Your task to perform on an android device: Go to display settings Image 0: 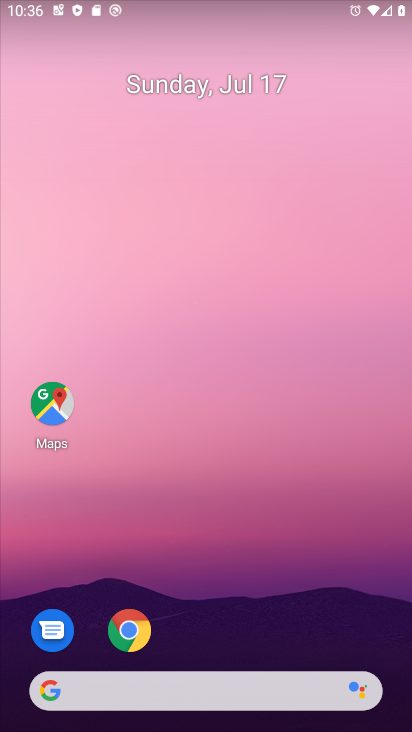
Step 0: drag from (334, 621) to (361, 112)
Your task to perform on an android device: Go to display settings Image 1: 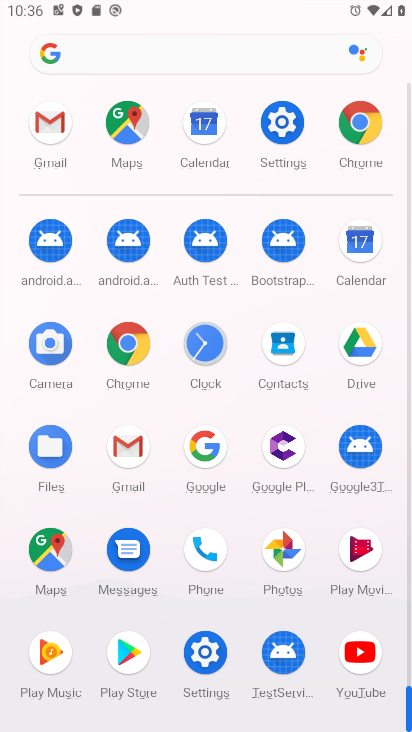
Step 1: click (285, 128)
Your task to perform on an android device: Go to display settings Image 2: 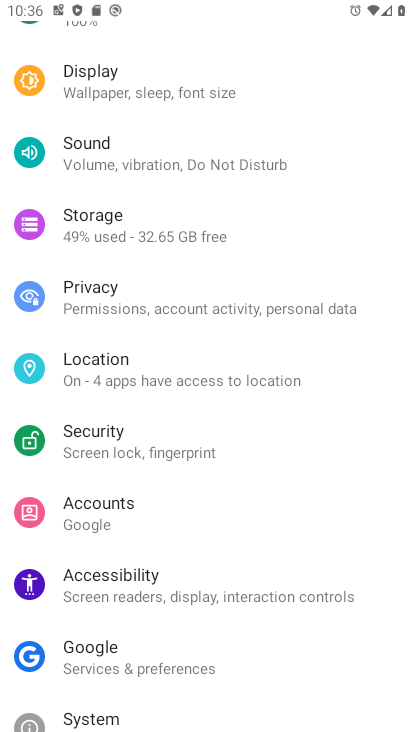
Step 2: drag from (355, 221) to (365, 349)
Your task to perform on an android device: Go to display settings Image 3: 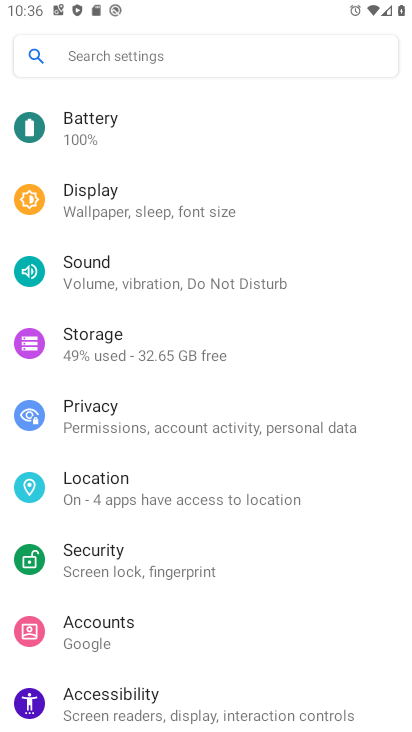
Step 3: drag from (375, 175) to (364, 294)
Your task to perform on an android device: Go to display settings Image 4: 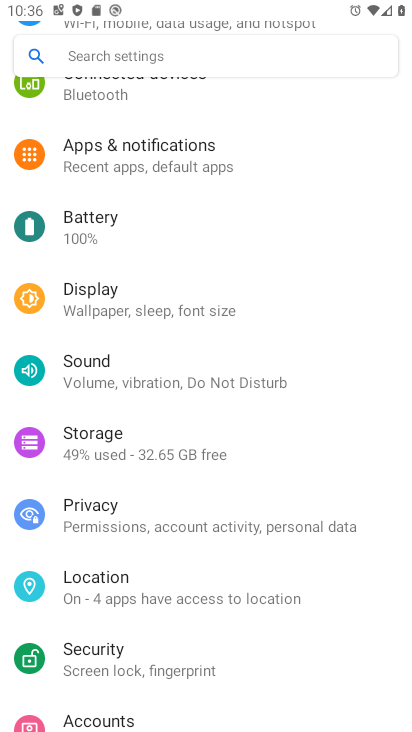
Step 4: drag from (361, 161) to (359, 300)
Your task to perform on an android device: Go to display settings Image 5: 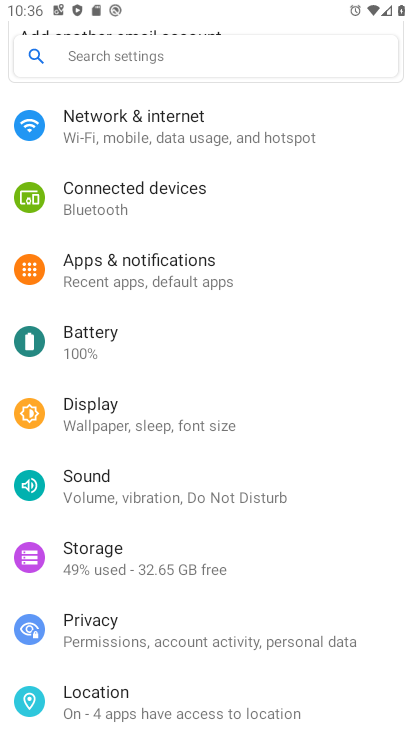
Step 5: drag from (366, 154) to (368, 288)
Your task to perform on an android device: Go to display settings Image 6: 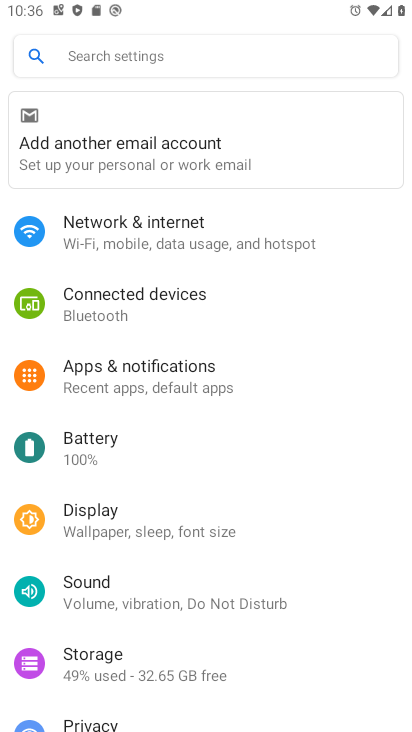
Step 6: drag from (362, 250) to (363, 390)
Your task to perform on an android device: Go to display settings Image 7: 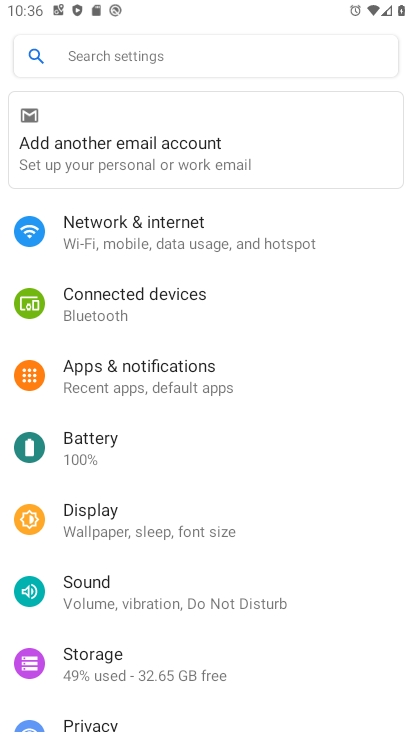
Step 7: drag from (341, 464) to (353, 354)
Your task to perform on an android device: Go to display settings Image 8: 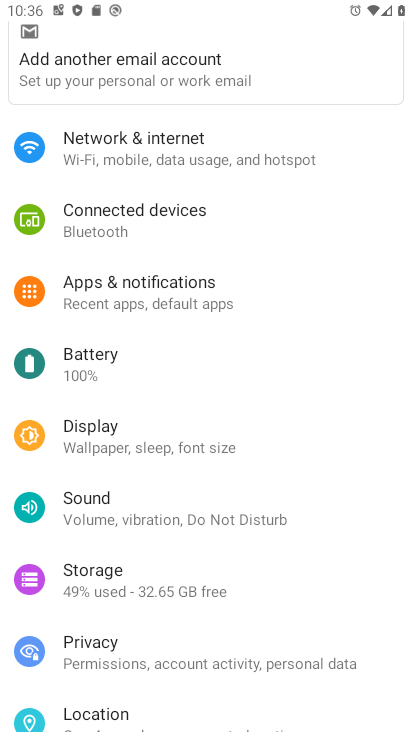
Step 8: drag from (344, 442) to (339, 328)
Your task to perform on an android device: Go to display settings Image 9: 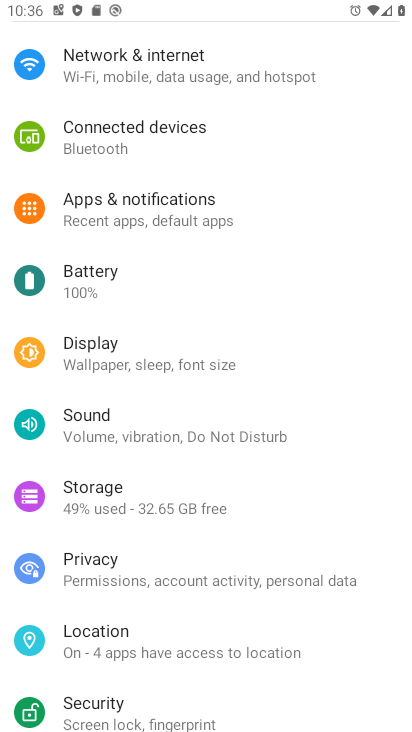
Step 9: drag from (331, 453) to (334, 300)
Your task to perform on an android device: Go to display settings Image 10: 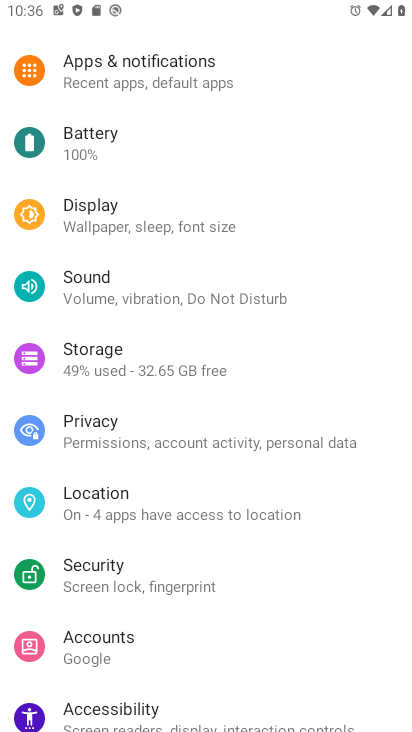
Step 10: click (198, 211)
Your task to perform on an android device: Go to display settings Image 11: 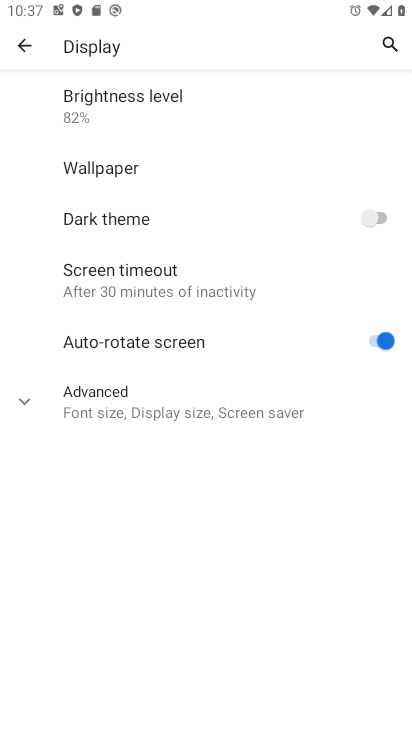
Step 11: click (244, 397)
Your task to perform on an android device: Go to display settings Image 12: 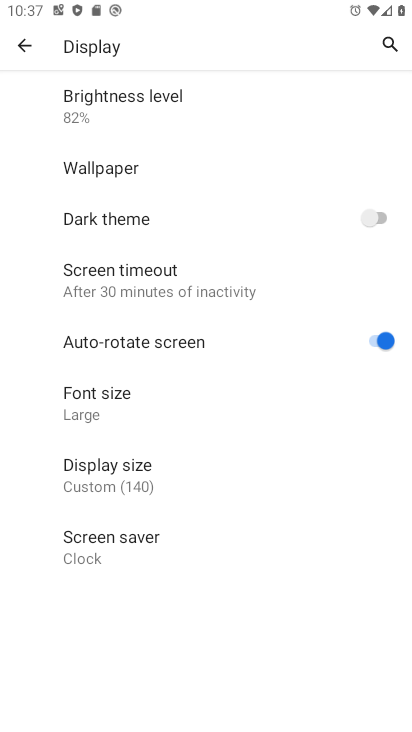
Step 12: task complete